Your task to perform on an android device: turn off sleep mode Image 0: 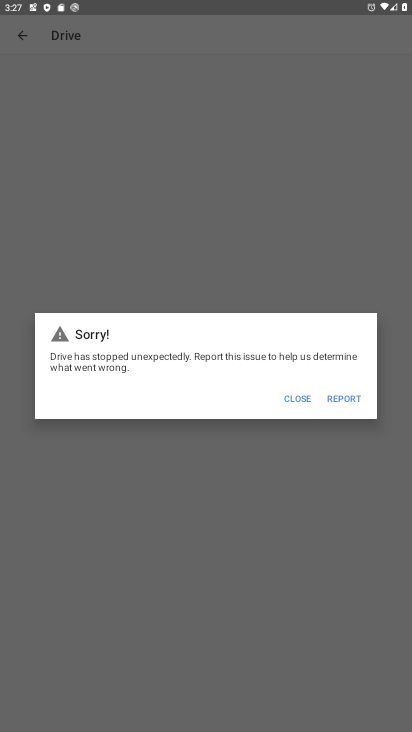
Step 0: press home button
Your task to perform on an android device: turn off sleep mode Image 1: 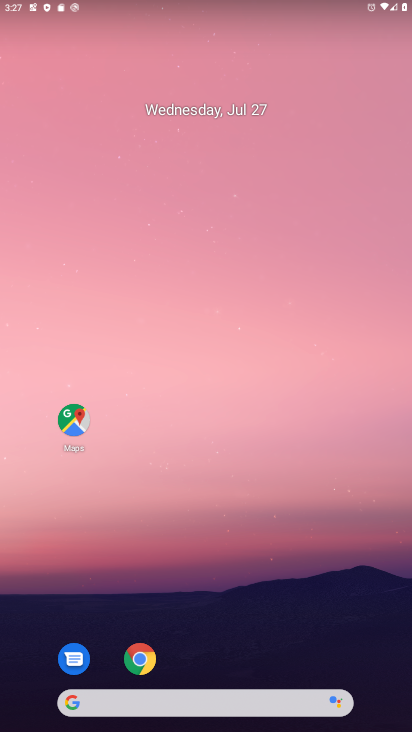
Step 1: drag from (289, 640) to (246, 99)
Your task to perform on an android device: turn off sleep mode Image 2: 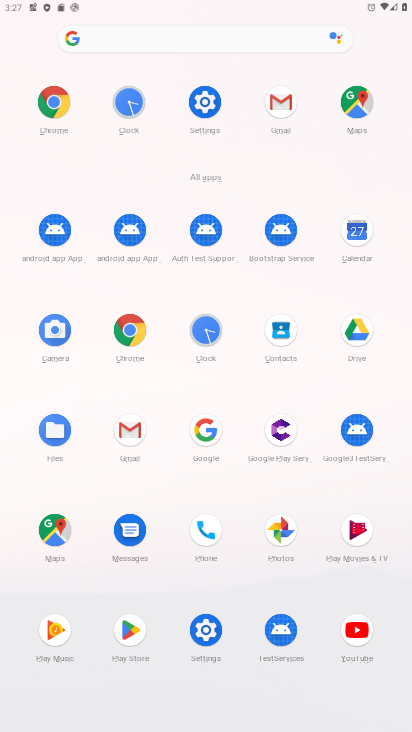
Step 2: click (198, 102)
Your task to perform on an android device: turn off sleep mode Image 3: 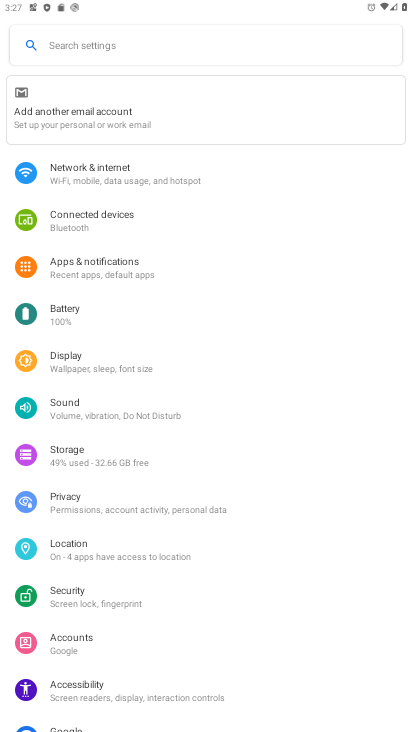
Step 3: drag from (183, 274) to (190, 114)
Your task to perform on an android device: turn off sleep mode Image 4: 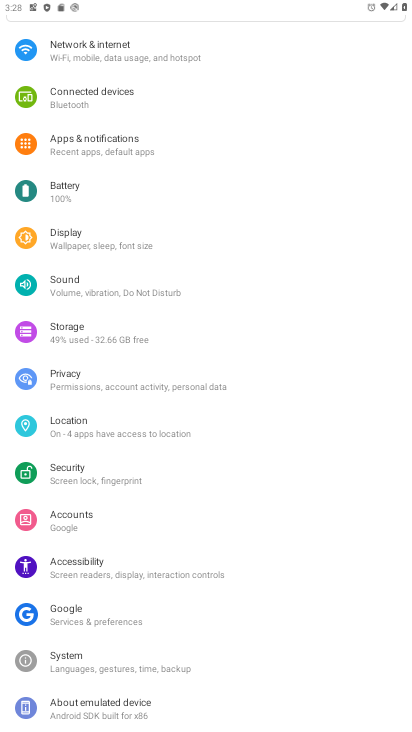
Step 4: click (189, 239)
Your task to perform on an android device: turn off sleep mode Image 5: 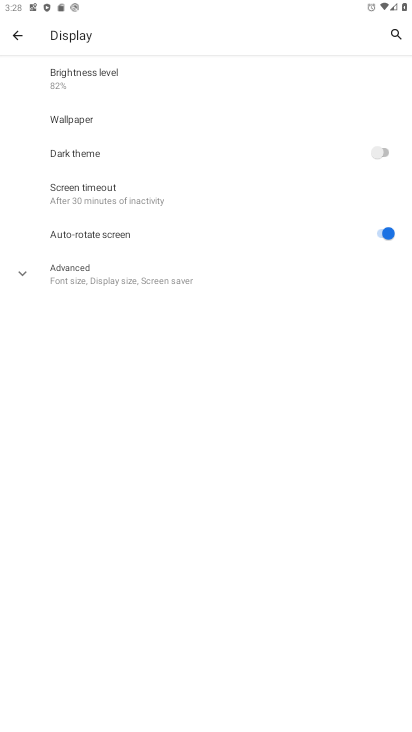
Step 5: click (187, 270)
Your task to perform on an android device: turn off sleep mode Image 6: 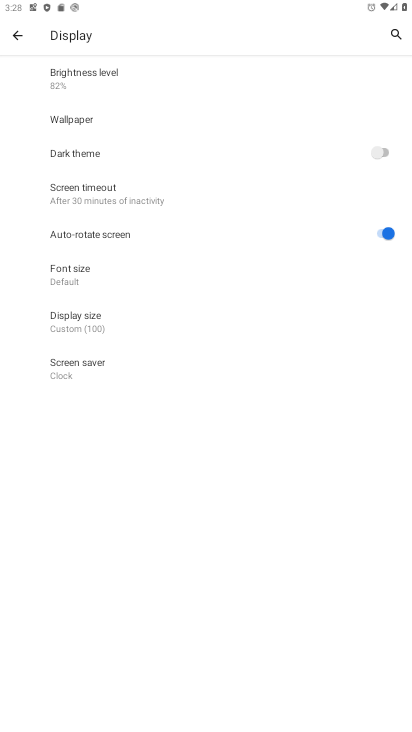
Step 6: task complete